Your task to perform on an android device: Open calendar and show me the third week of next month Image 0: 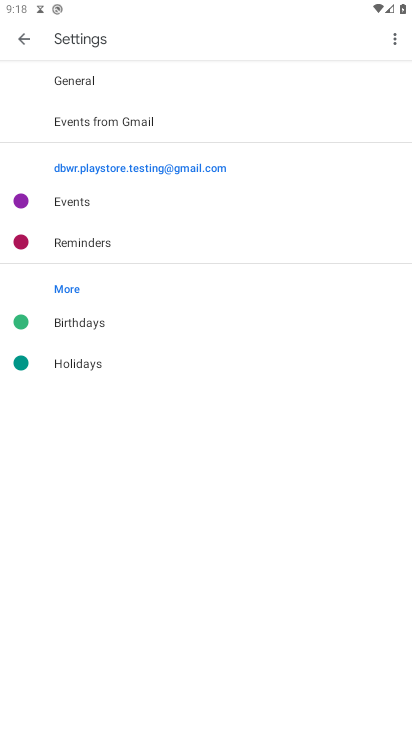
Step 0: press home button
Your task to perform on an android device: Open calendar and show me the third week of next month Image 1: 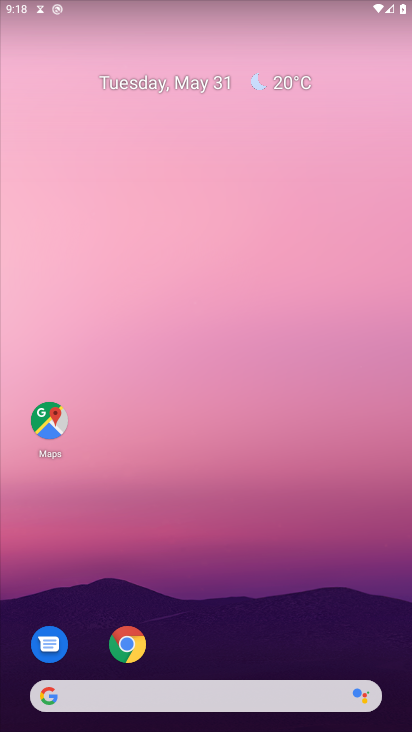
Step 1: drag from (223, 646) to (219, 123)
Your task to perform on an android device: Open calendar and show me the third week of next month Image 2: 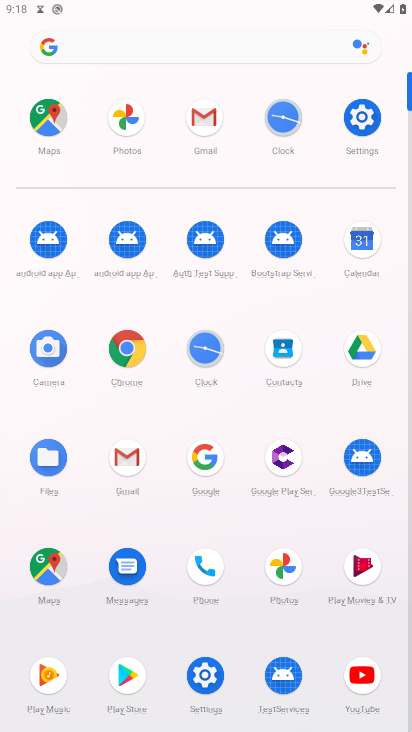
Step 2: click (358, 232)
Your task to perform on an android device: Open calendar and show me the third week of next month Image 3: 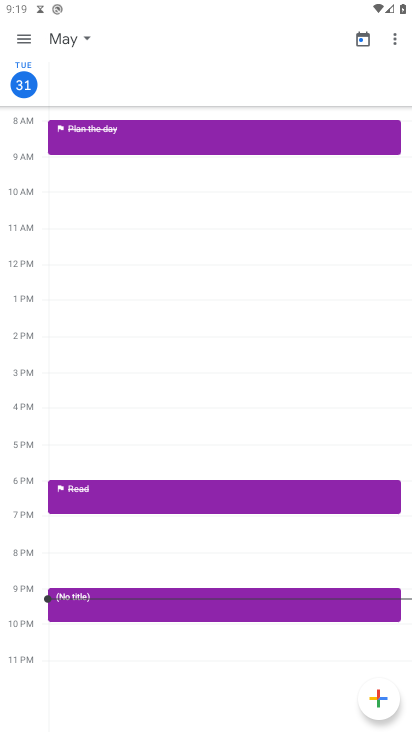
Step 3: click (20, 33)
Your task to perform on an android device: Open calendar and show me the third week of next month Image 4: 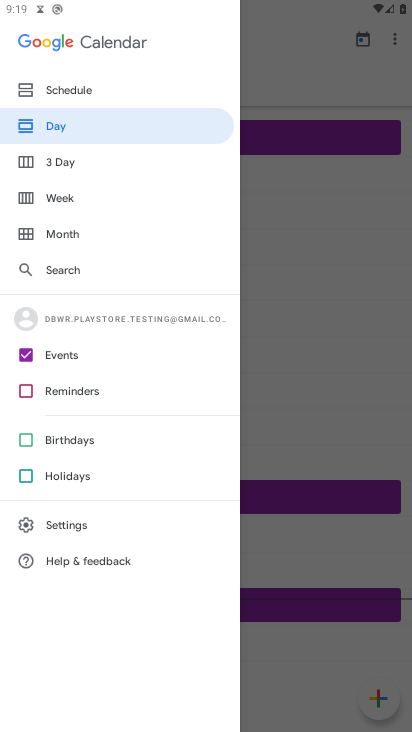
Step 4: click (37, 194)
Your task to perform on an android device: Open calendar and show me the third week of next month Image 5: 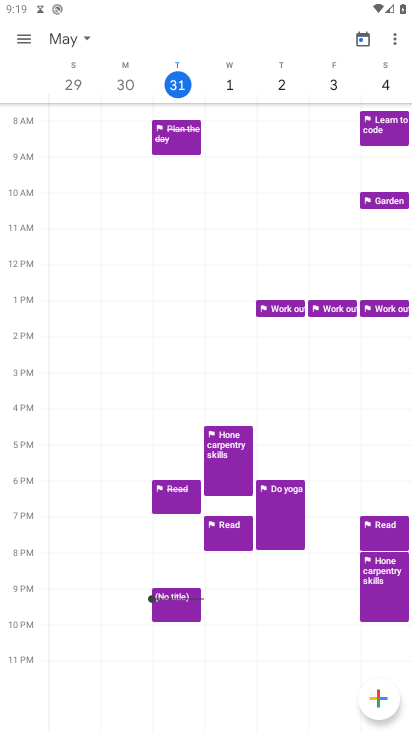
Step 5: click (85, 30)
Your task to perform on an android device: Open calendar and show me the third week of next month Image 6: 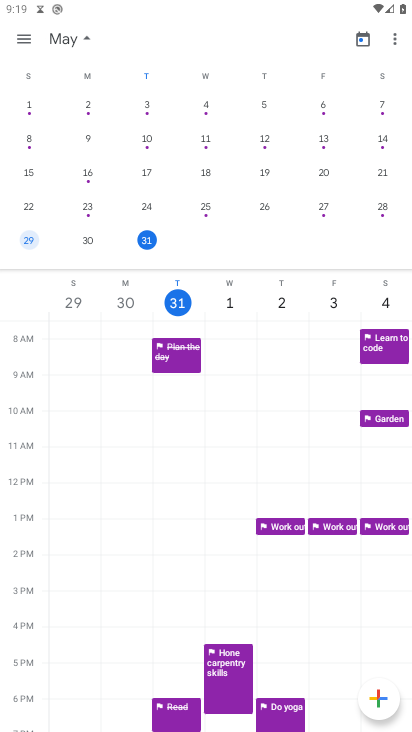
Step 6: drag from (320, 141) to (22, 135)
Your task to perform on an android device: Open calendar and show me the third week of next month Image 7: 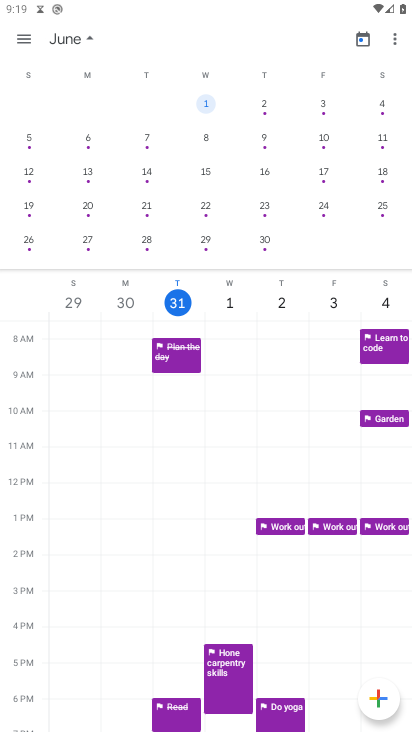
Step 7: click (26, 175)
Your task to perform on an android device: Open calendar and show me the third week of next month Image 8: 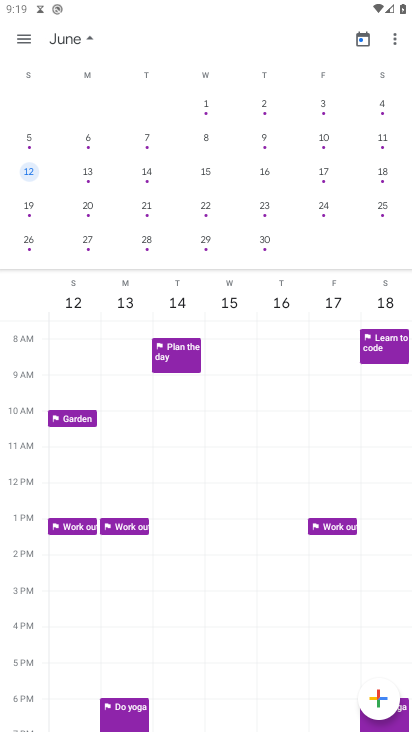
Step 8: click (86, 42)
Your task to perform on an android device: Open calendar and show me the third week of next month Image 9: 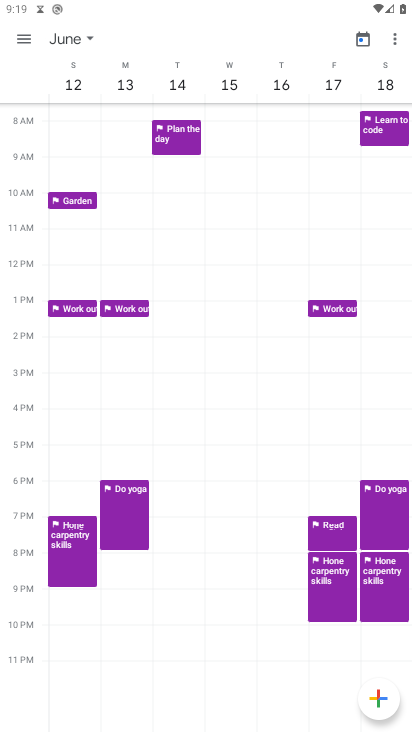
Step 9: click (78, 77)
Your task to perform on an android device: Open calendar and show me the third week of next month Image 10: 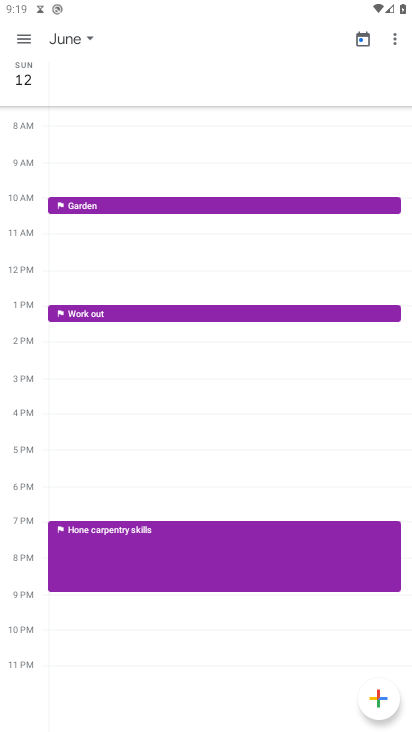
Step 10: click (29, 77)
Your task to perform on an android device: Open calendar and show me the third week of next month Image 11: 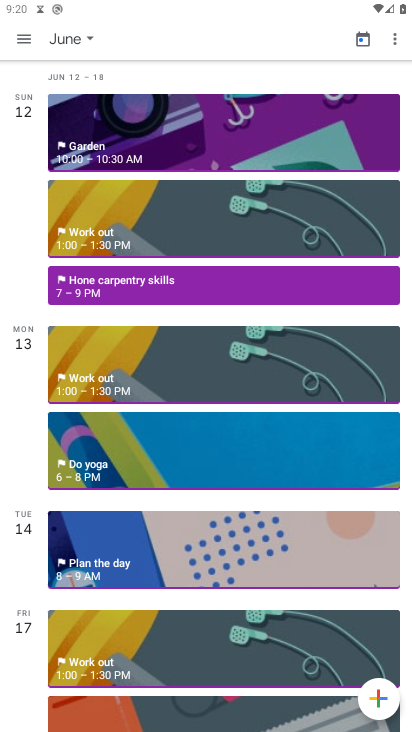
Step 11: task complete